Your task to perform on an android device: remove spam from my inbox in the gmail app Image 0: 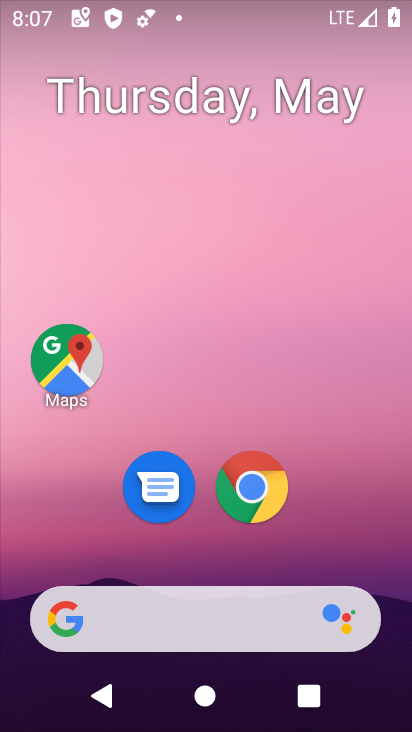
Step 0: drag from (228, 572) to (233, 181)
Your task to perform on an android device: remove spam from my inbox in the gmail app Image 1: 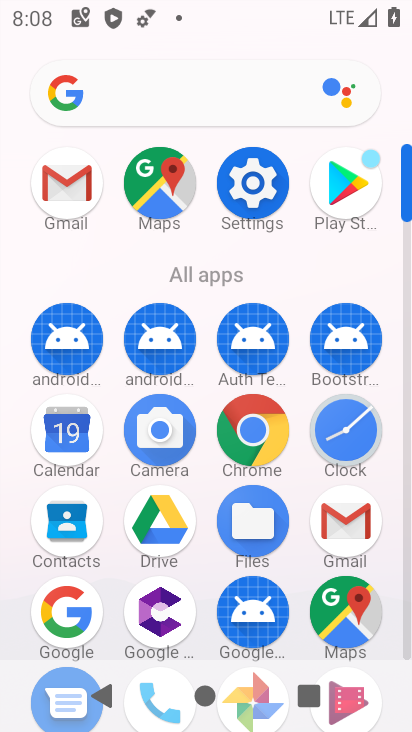
Step 1: click (315, 510)
Your task to perform on an android device: remove spam from my inbox in the gmail app Image 2: 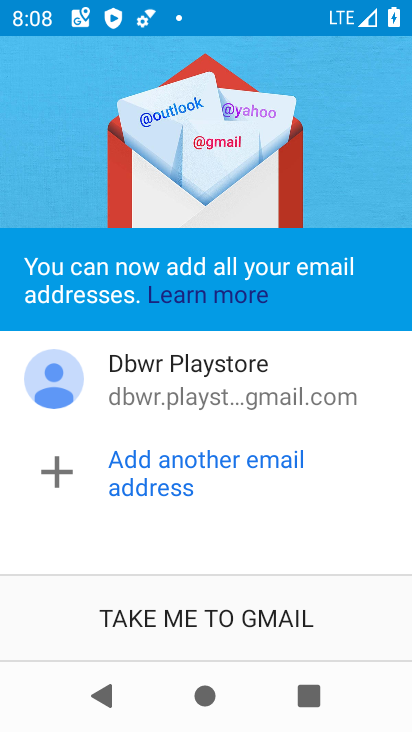
Step 2: click (197, 607)
Your task to perform on an android device: remove spam from my inbox in the gmail app Image 3: 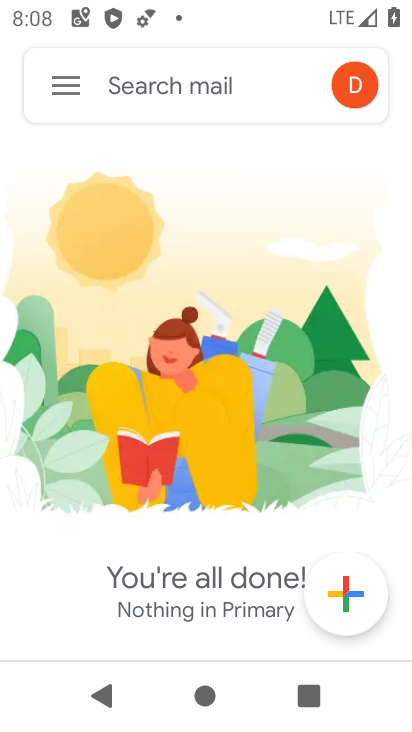
Step 3: click (69, 91)
Your task to perform on an android device: remove spam from my inbox in the gmail app Image 4: 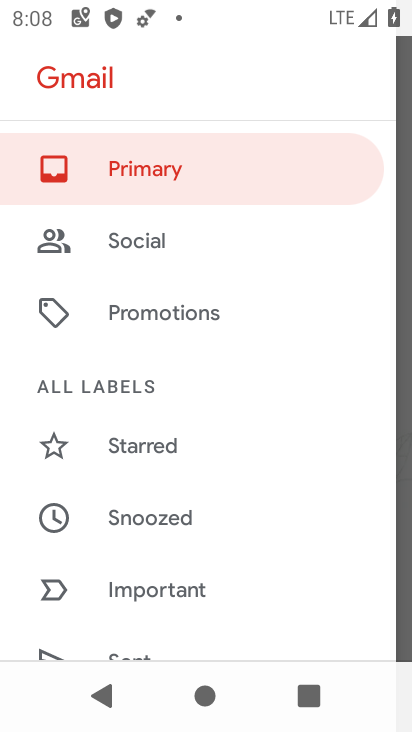
Step 4: drag from (177, 567) to (209, 150)
Your task to perform on an android device: remove spam from my inbox in the gmail app Image 5: 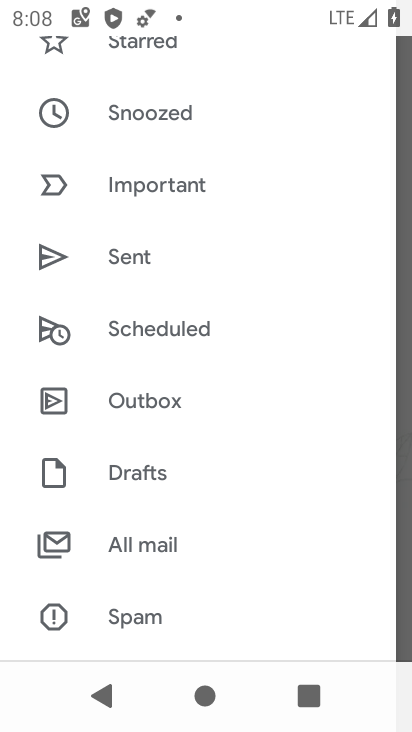
Step 5: drag from (188, 557) to (237, 209)
Your task to perform on an android device: remove spam from my inbox in the gmail app Image 6: 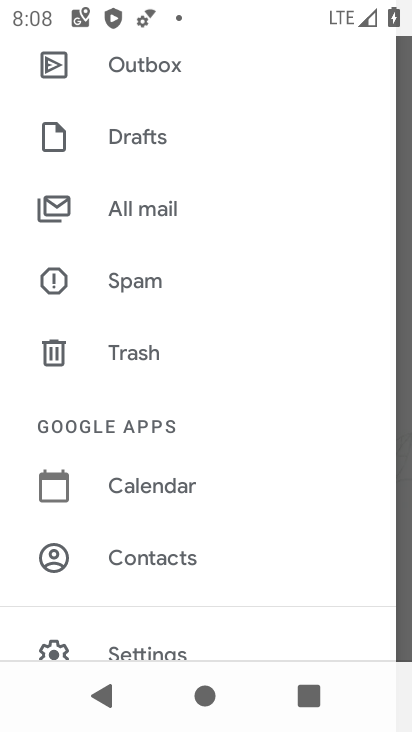
Step 6: click (172, 296)
Your task to perform on an android device: remove spam from my inbox in the gmail app Image 7: 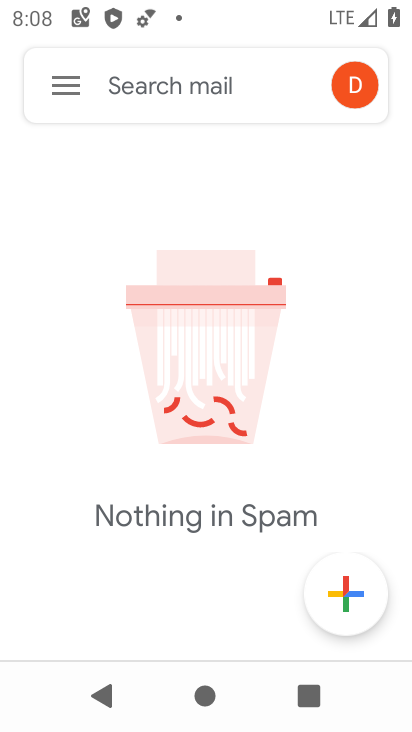
Step 7: click (56, 66)
Your task to perform on an android device: remove spam from my inbox in the gmail app Image 8: 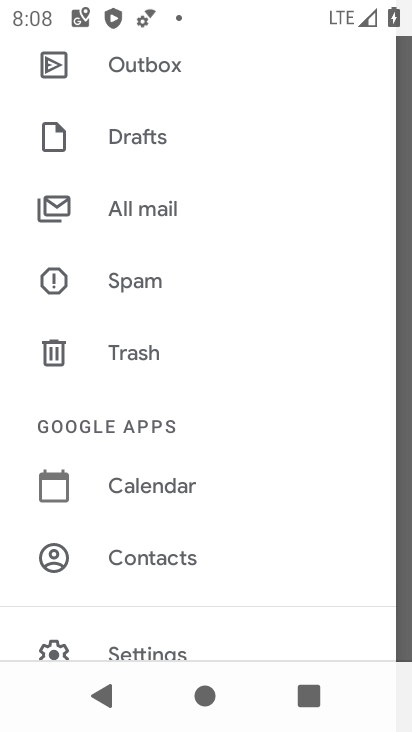
Step 8: click (177, 289)
Your task to perform on an android device: remove spam from my inbox in the gmail app Image 9: 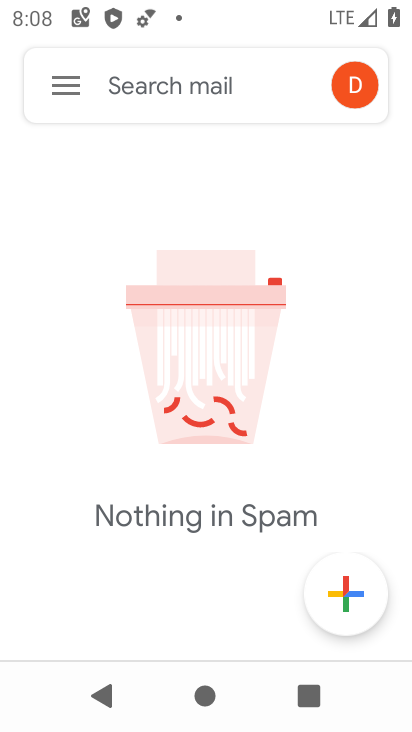
Step 9: task complete